Your task to perform on an android device: Open a new Chrome window Image 0: 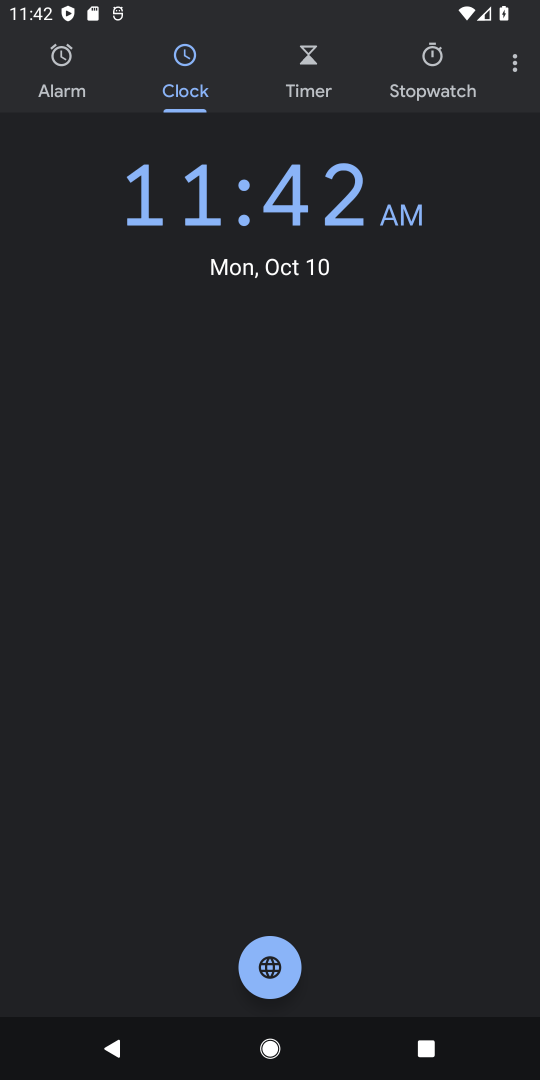
Step 0: press home button
Your task to perform on an android device: Open a new Chrome window Image 1: 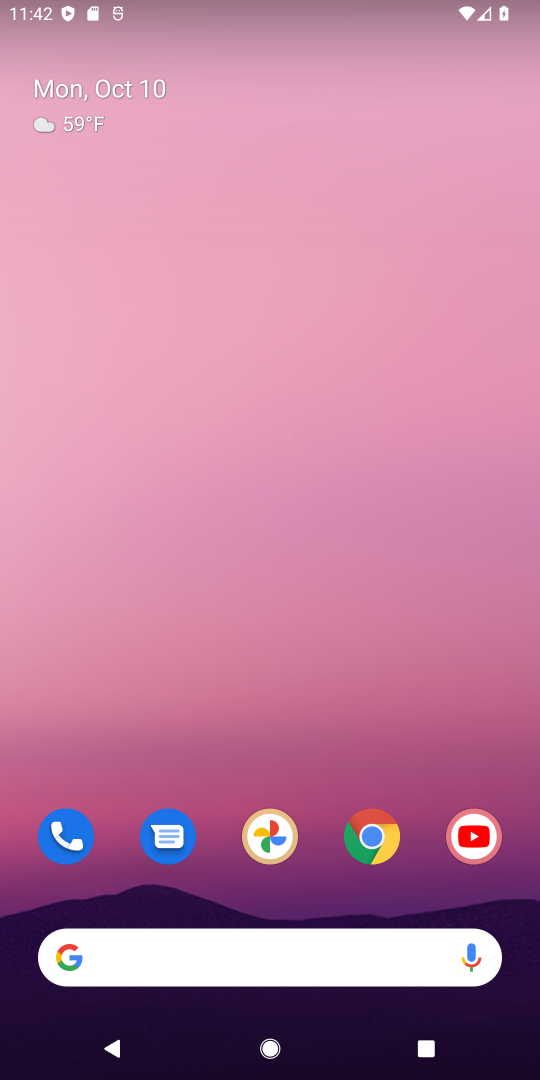
Step 1: click (386, 822)
Your task to perform on an android device: Open a new Chrome window Image 2: 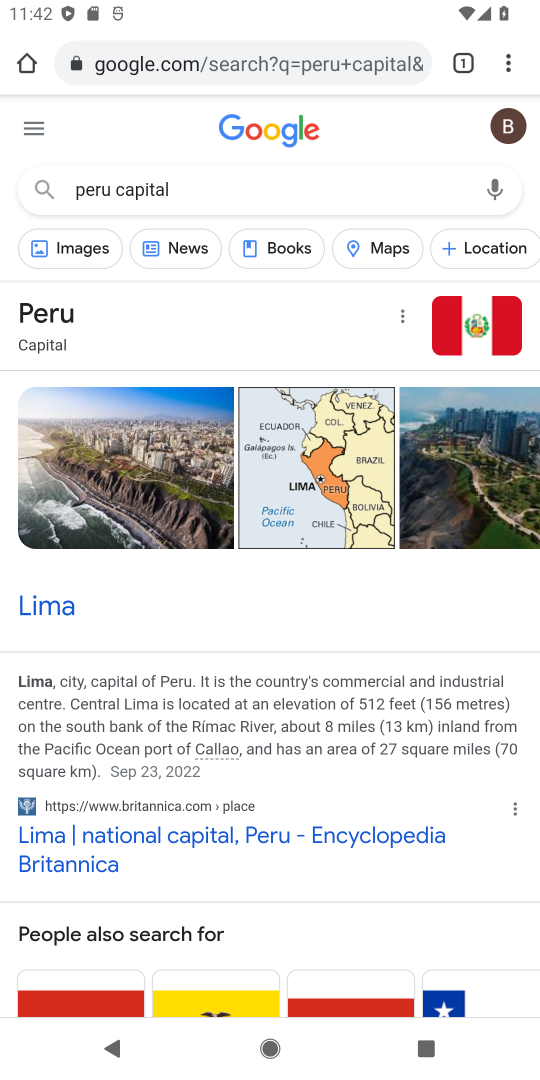
Step 2: click (473, 56)
Your task to perform on an android device: Open a new Chrome window Image 3: 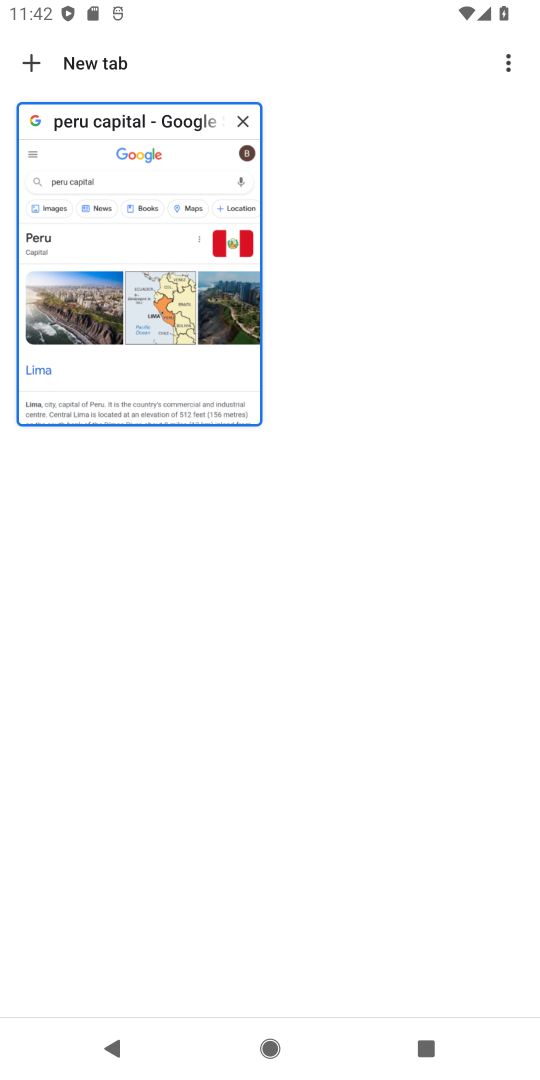
Step 3: click (35, 58)
Your task to perform on an android device: Open a new Chrome window Image 4: 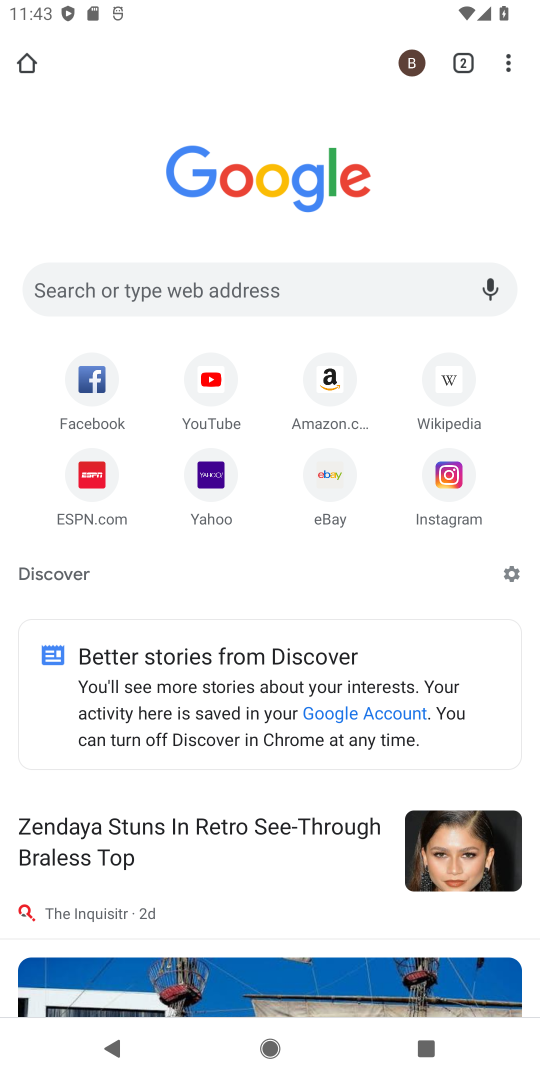
Step 4: task complete